Your task to perform on an android device: turn vacation reply on in the gmail app Image 0: 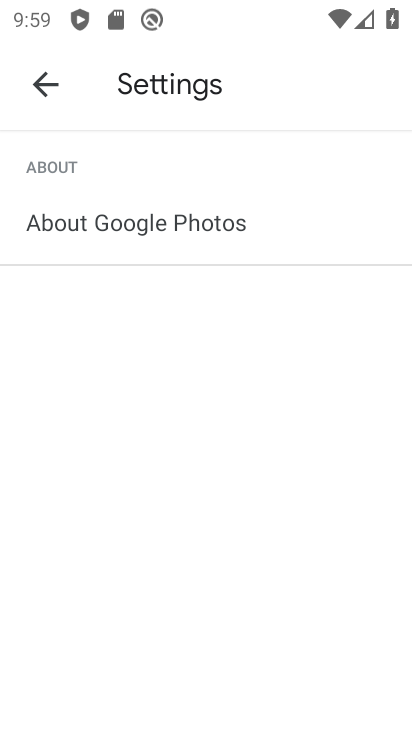
Step 0: press home button
Your task to perform on an android device: turn vacation reply on in the gmail app Image 1: 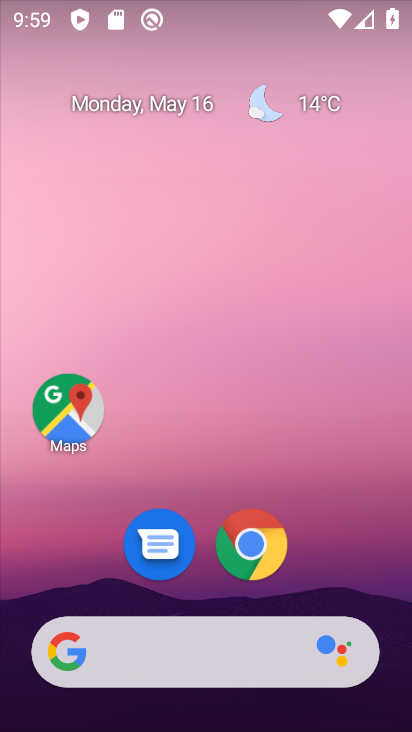
Step 1: drag from (329, 581) to (321, 148)
Your task to perform on an android device: turn vacation reply on in the gmail app Image 2: 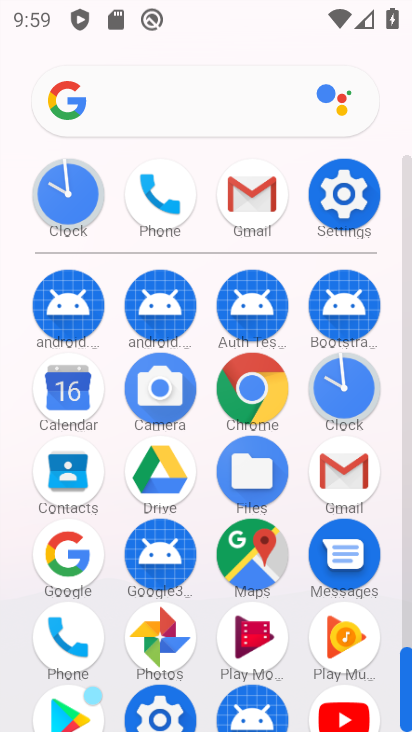
Step 2: click (357, 482)
Your task to perform on an android device: turn vacation reply on in the gmail app Image 3: 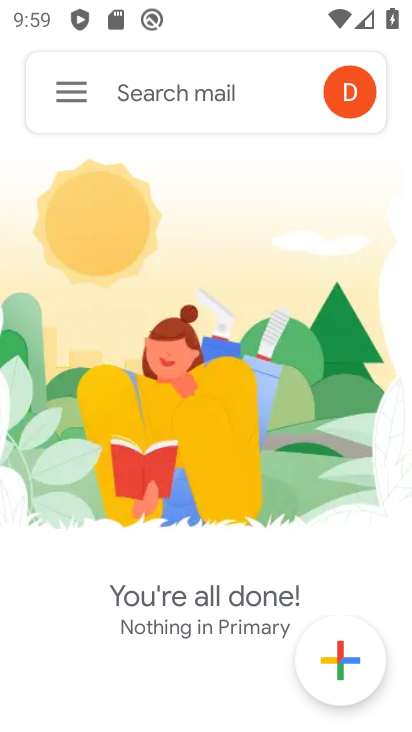
Step 3: click (69, 100)
Your task to perform on an android device: turn vacation reply on in the gmail app Image 4: 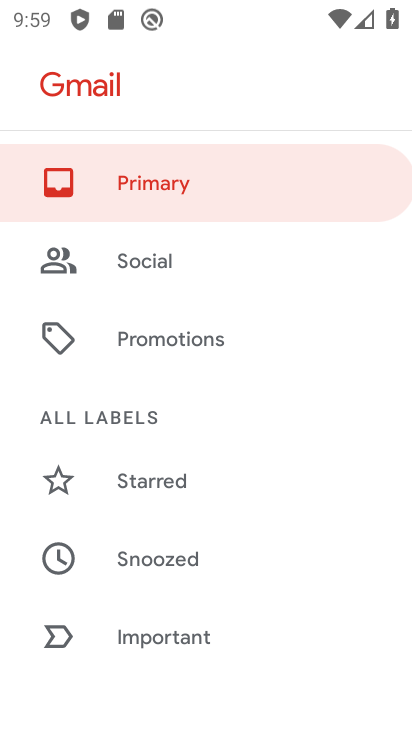
Step 4: drag from (200, 622) to (213, 180)
Your task to perform on an android device: turn vacation reply on in the gmail app Image 5: 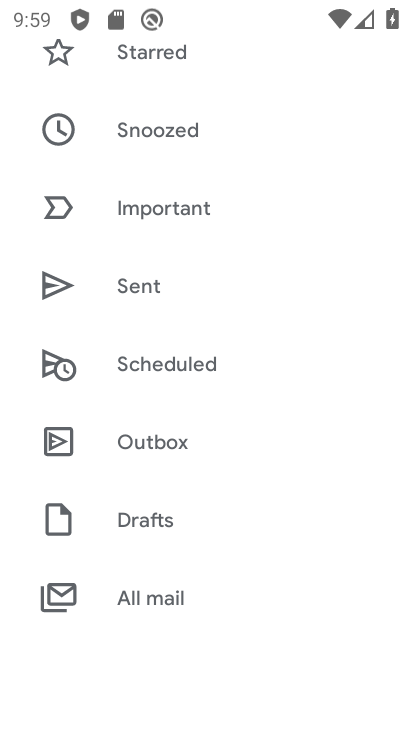
Step 5: drag from (195, 556) to (193, 155)
Your task to perform on an android device: turn vacation reply on in the gmail app Image 6: 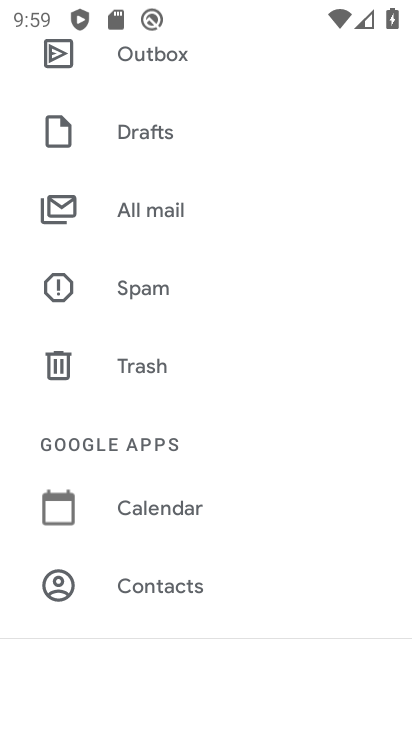
Step 6: drag from (220, 578) to (207, 238)
Your task to perform on an android device: turn vacation reply on in the gmail app Image 7: 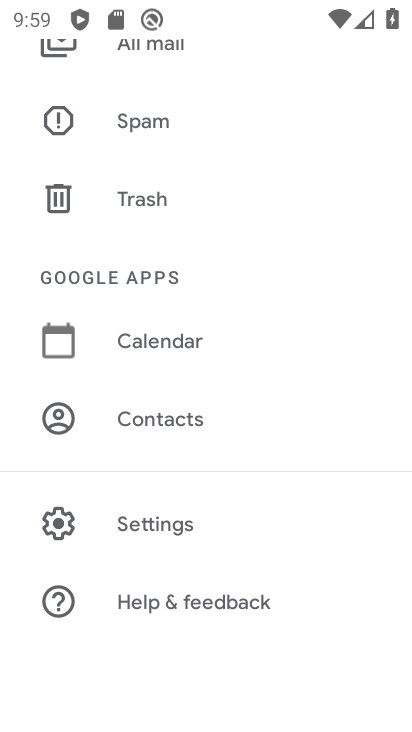
Step 7: click (183, 530)
Your task to perform on an android device: turn vacation reply on in the gmail app Image 8: 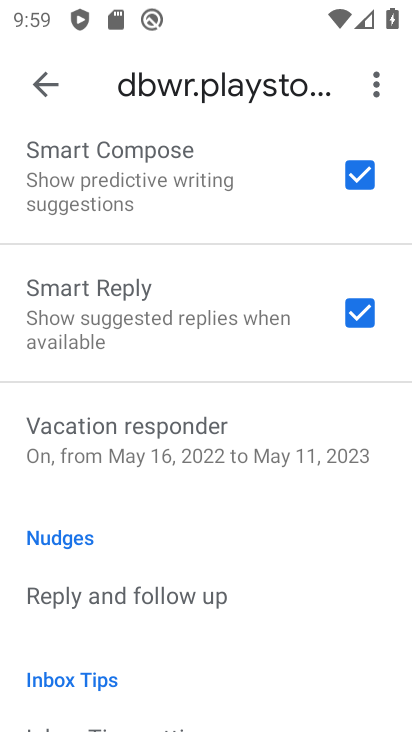
Step 8: drag from (188, 623) to (196, 385)
Your task to perform on an android device: turn vacation reply on in the gmail app Image 9: 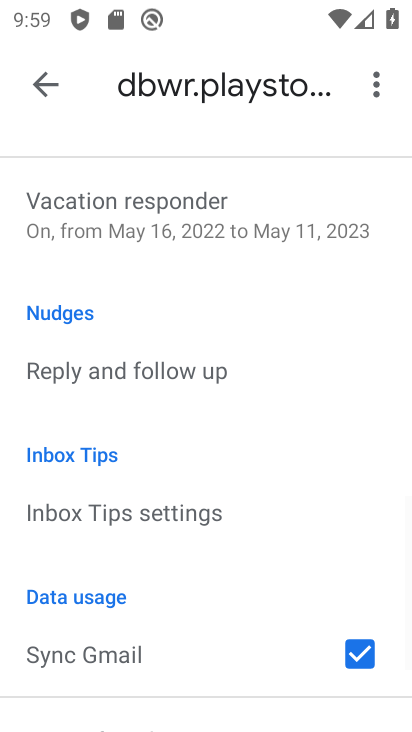
Step 9: click (219, 224)
Your task to perform on an android device: turn vacation reply on in the gmail app Image 10: 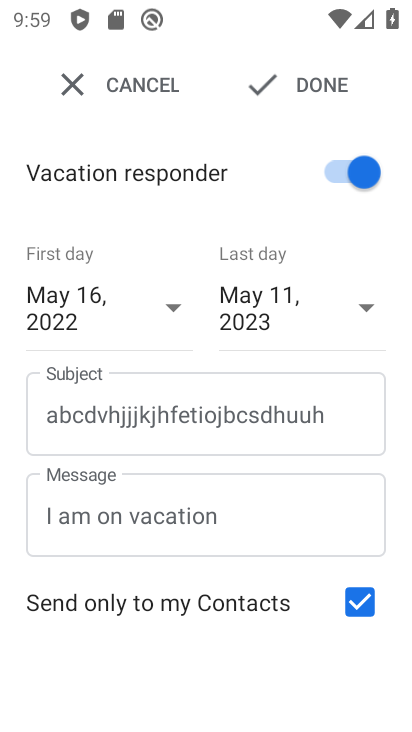
Step 10: click (284, 84)
Your task to perform on an android device: turn vacation reply on in the gmail app Image 11: 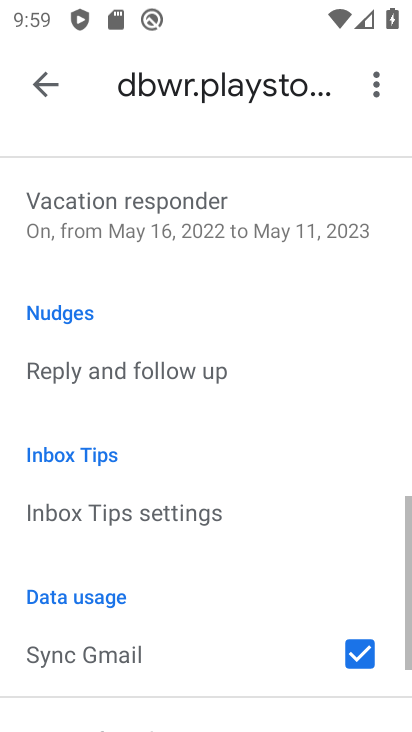
Step 11: task complete